Your task to perform on an android device: What's on my calendar tomorrow? Image 0: 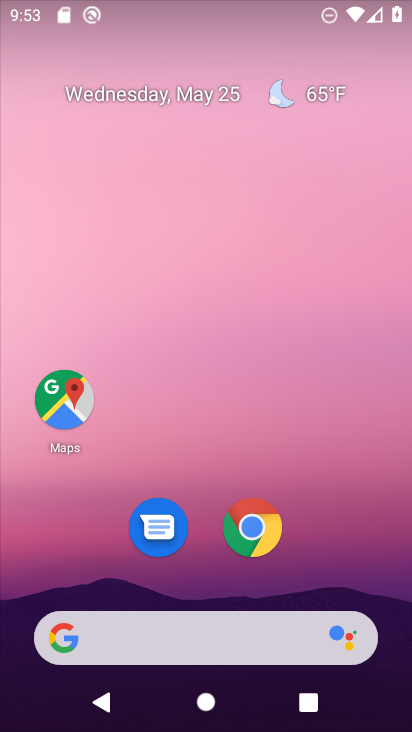
Step 0: drag from (339, 578) to (274, 89)
Your task to perform on an android device: What's on my calendar tomorrow? Image 1: 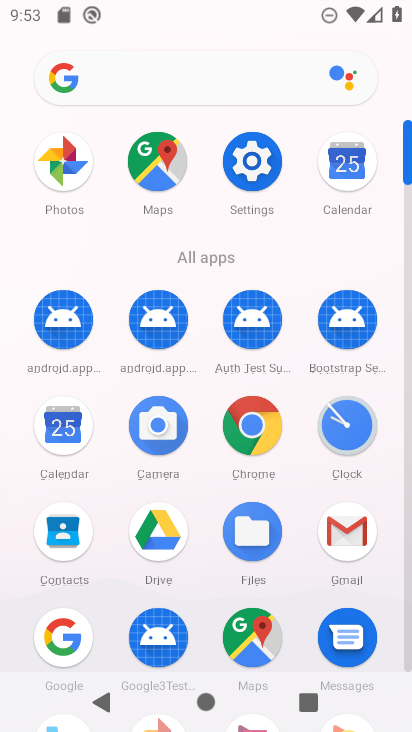
Step 1: click (350, 164)
Your task to perform on an android device: What's on my calendar tomorrow? Image 2: 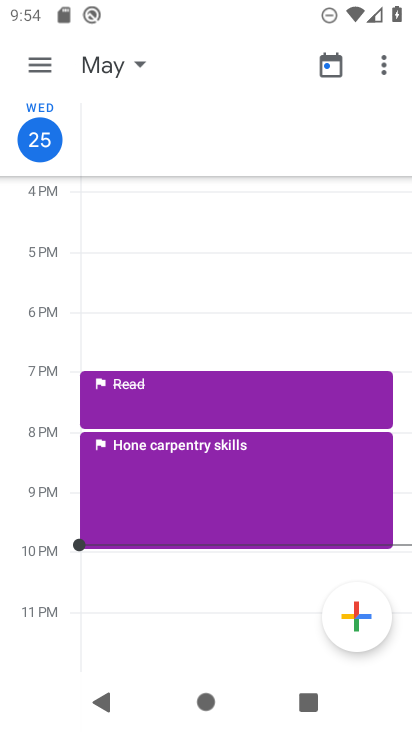
Step 2: click (331, 69)
Your task to perform on an android device: What's on my calendar tomorrow? Image 3: 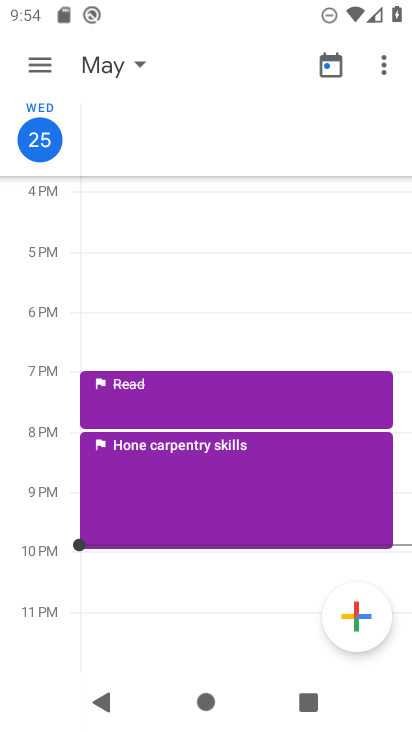
Step 3: click (139, 57)
Your task to perform on an android device: What's on my calendar tomorrow? Image 4: 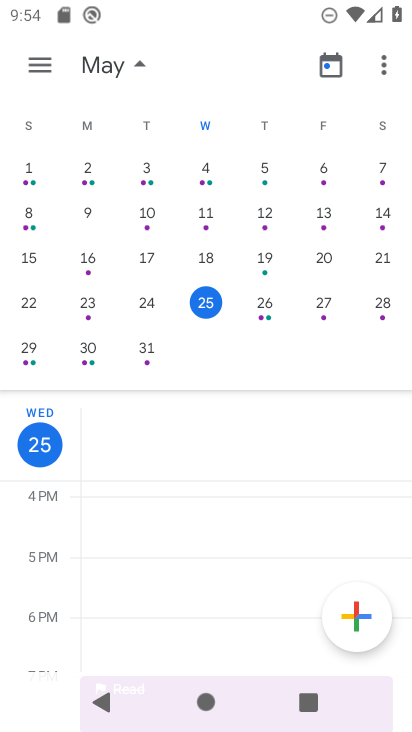
Step 4: click (271, 306)
Your task to perform on an android device: What's on my calendar tomorrow? Image 5: 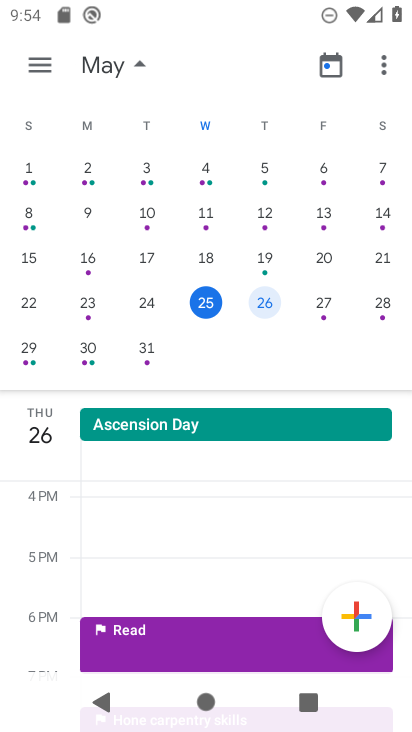
Step 5: click (28, 66)
Your task to perform on an android device: What's on my calendar tomorrow? Image 6: 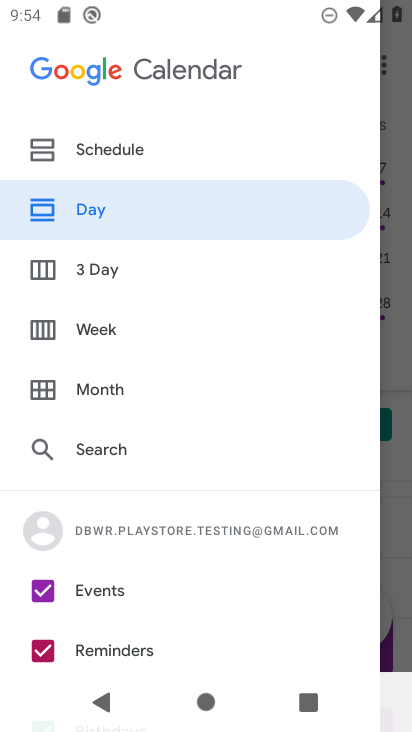
Step 6: click (100, 148)
Your task to perform on an android device: What's on my calendar tomorrow? Image 7: 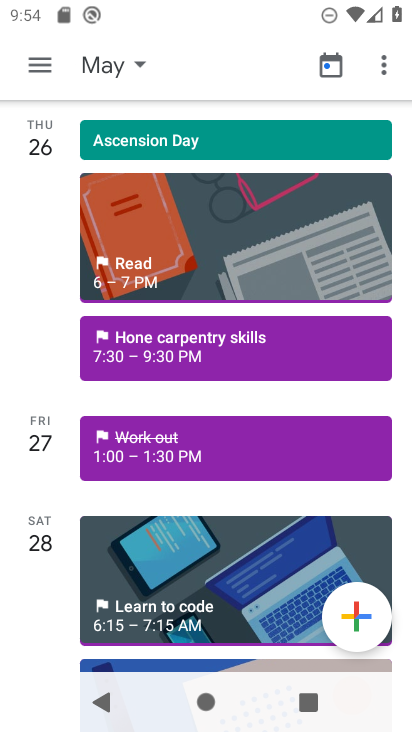
Step 7: task complete